Your task to perform on an android device: open app "Gmail" (install if not already installed) and enter user name: "undecidable@inbox.com" and password: "discouraging" Image 0: 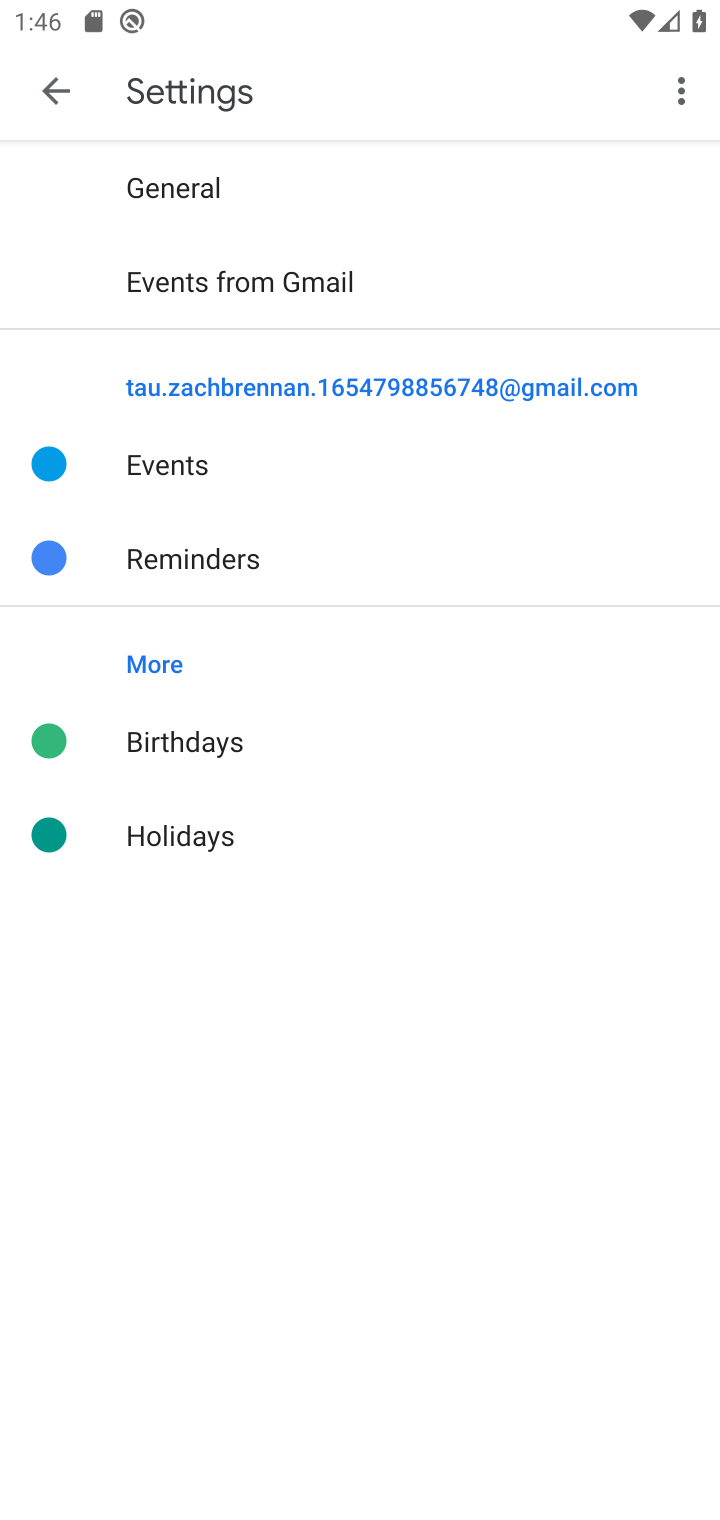
Step 0: press home button
Your task to perform on an android device: open app "Gmail" (install if not already installed) and enter user name: "undecidable@inbox.com" and password: "discouraging" Image 1: 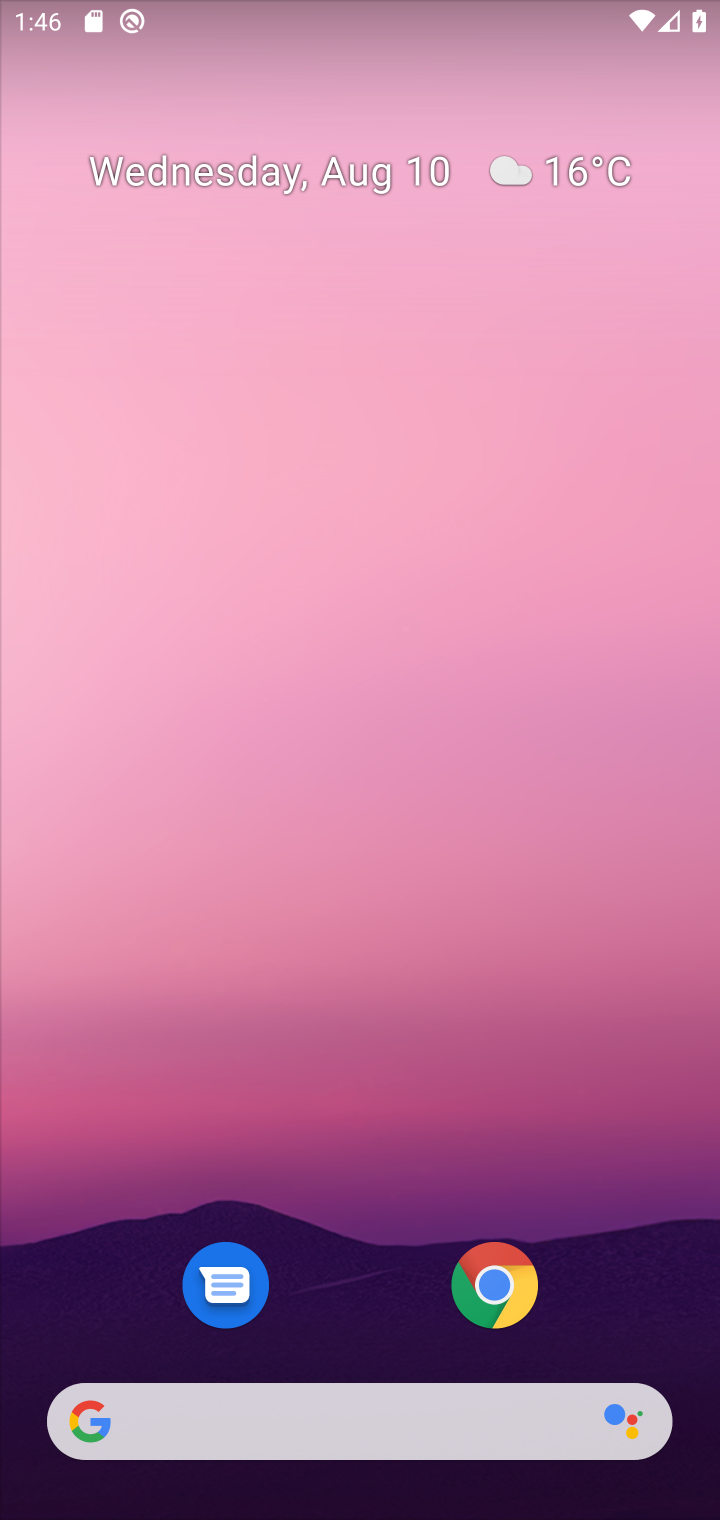
Step 1: click (349, 1210)
Your task to perform on an android device: open app "Gmail" (install if not already installed) and enter user name: "undecidable@inbox.com" and password: "discouraging" Image 2: 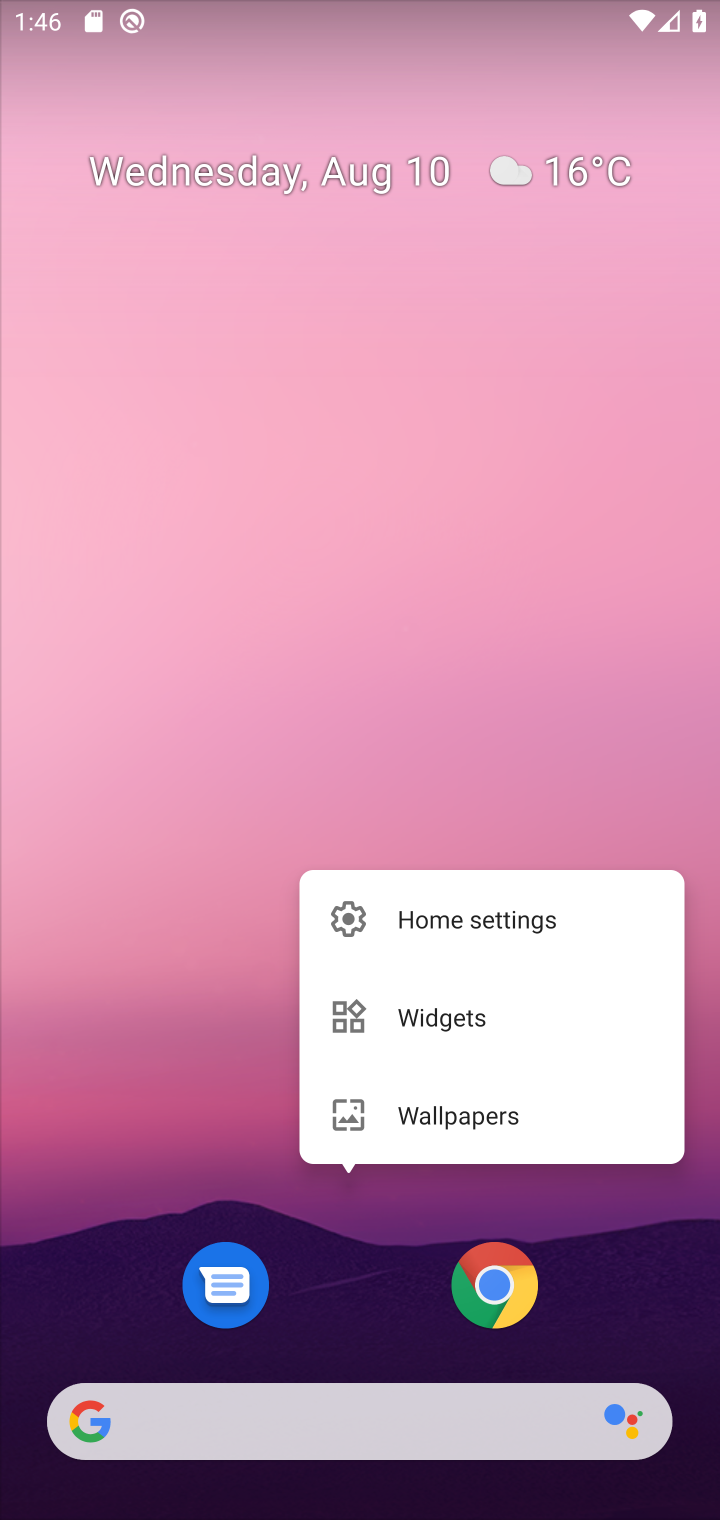
Step 2: drag from (322, 1240) to (450, 65)
Your task to perform on an android device: open app "Gmail" (install if not already installed) and enter user name: "undecidable@inbox.com" and password: "discouraging" Image 3: 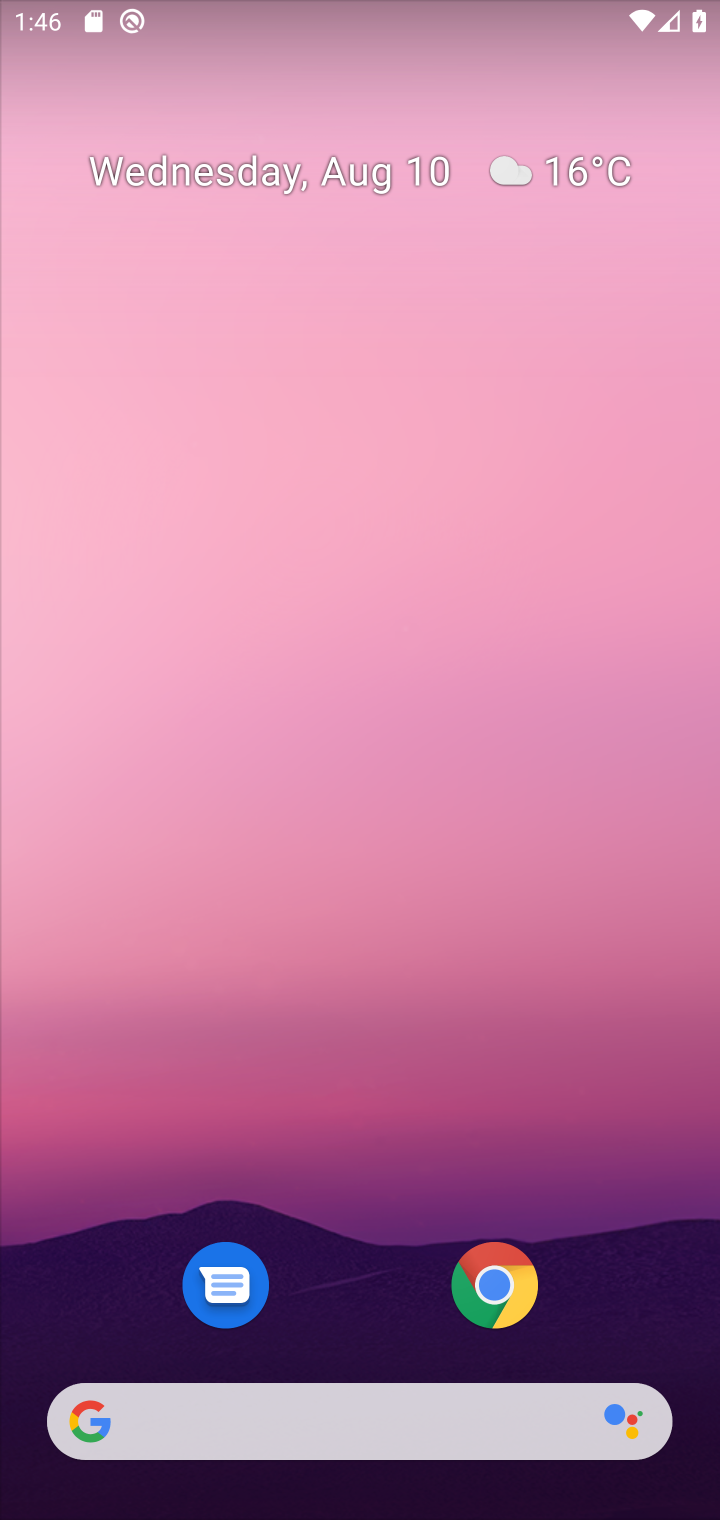
Step 3: drag from (229, 779) to (328, 154)
Your task to perform on an android device: open app "Gmail" (install if not already installed) and enter user name: "undecidable@inbox.com" and password: "discouraging" Image 4: 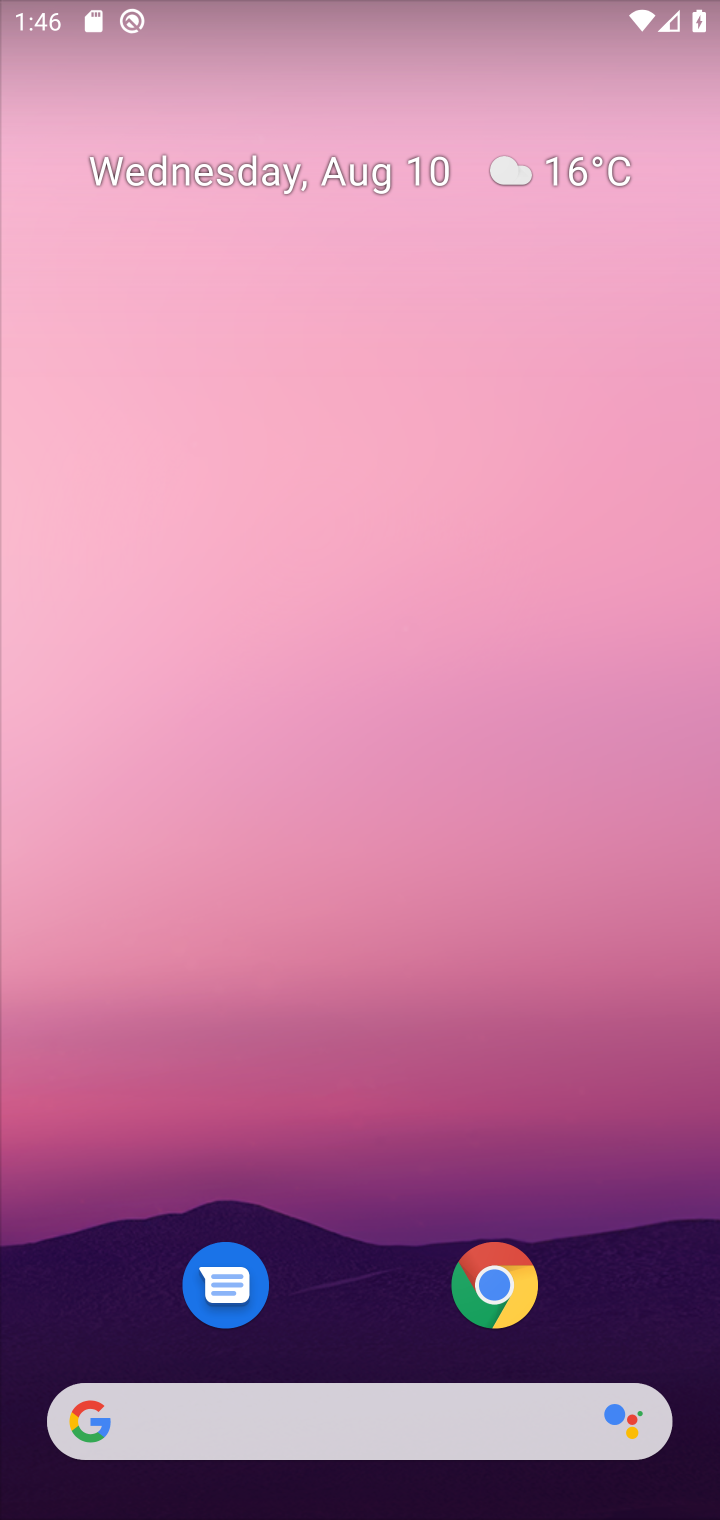
Step 4: drag from (386, 1293) to (561, 45)
Your task to perform on an android device: open app "Gmail" (install if not already installed) and enter user name: "undecidable@inbox.com" and password: "discouraging" Image 5: 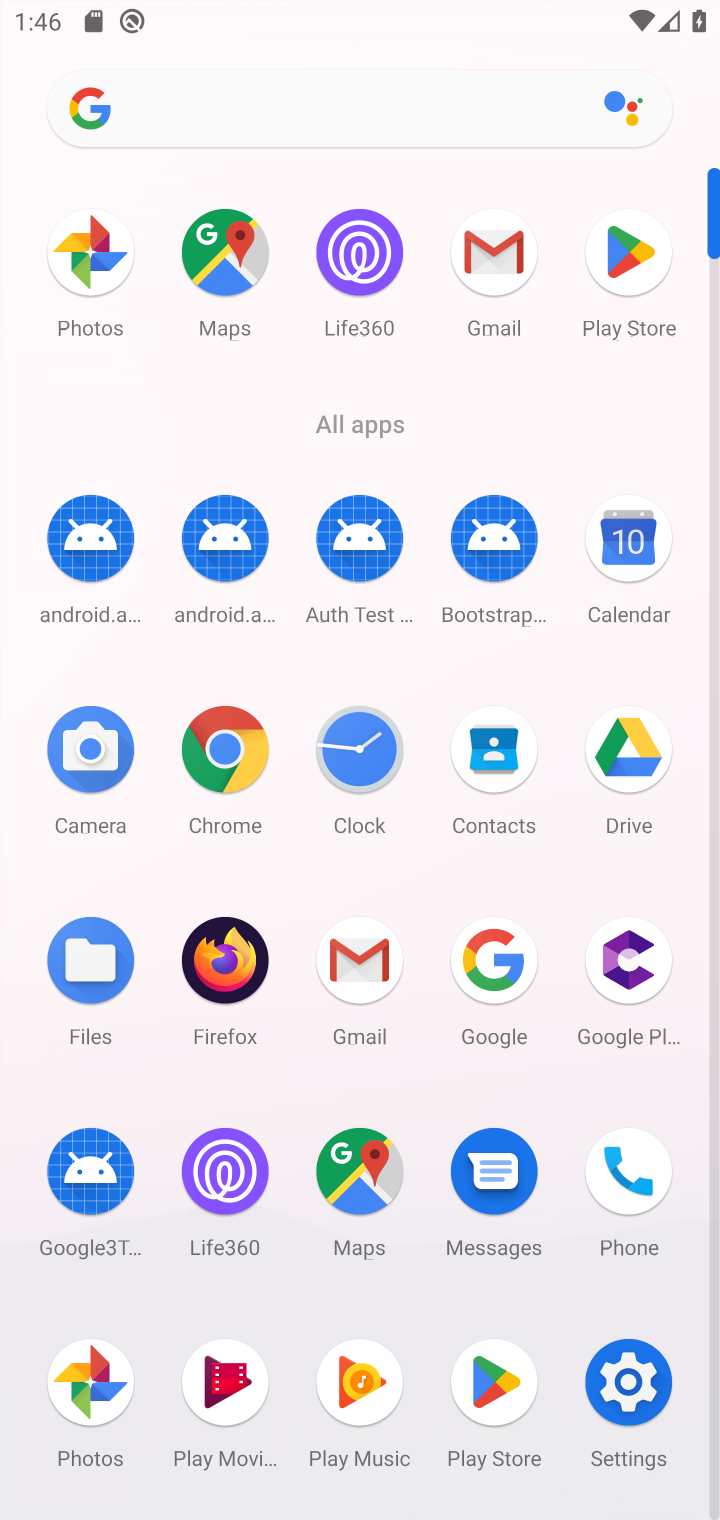
Step 5: click (493, 270)
Your task to perform on an android device: open app "Gmail" (install if not already installed) and enter user name: "undecidable@inbox.com" and password: "discouraging" Image 6: 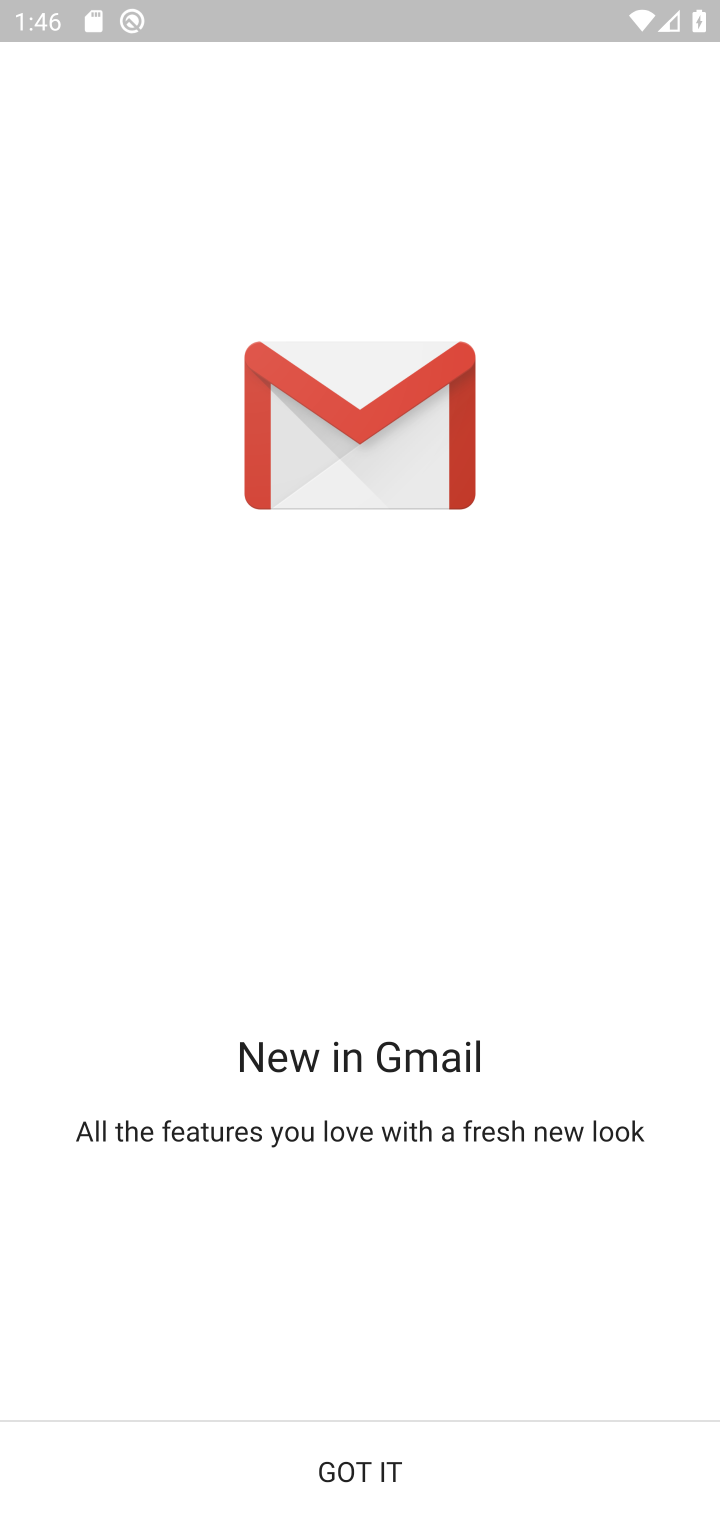
Step 6: click (358, 1461)
Your task to perform on an android device: open app "Gmail" (install if not already installed) and enter user name: "undecidable@inbox.com" and password: "discouraging" Image 7: 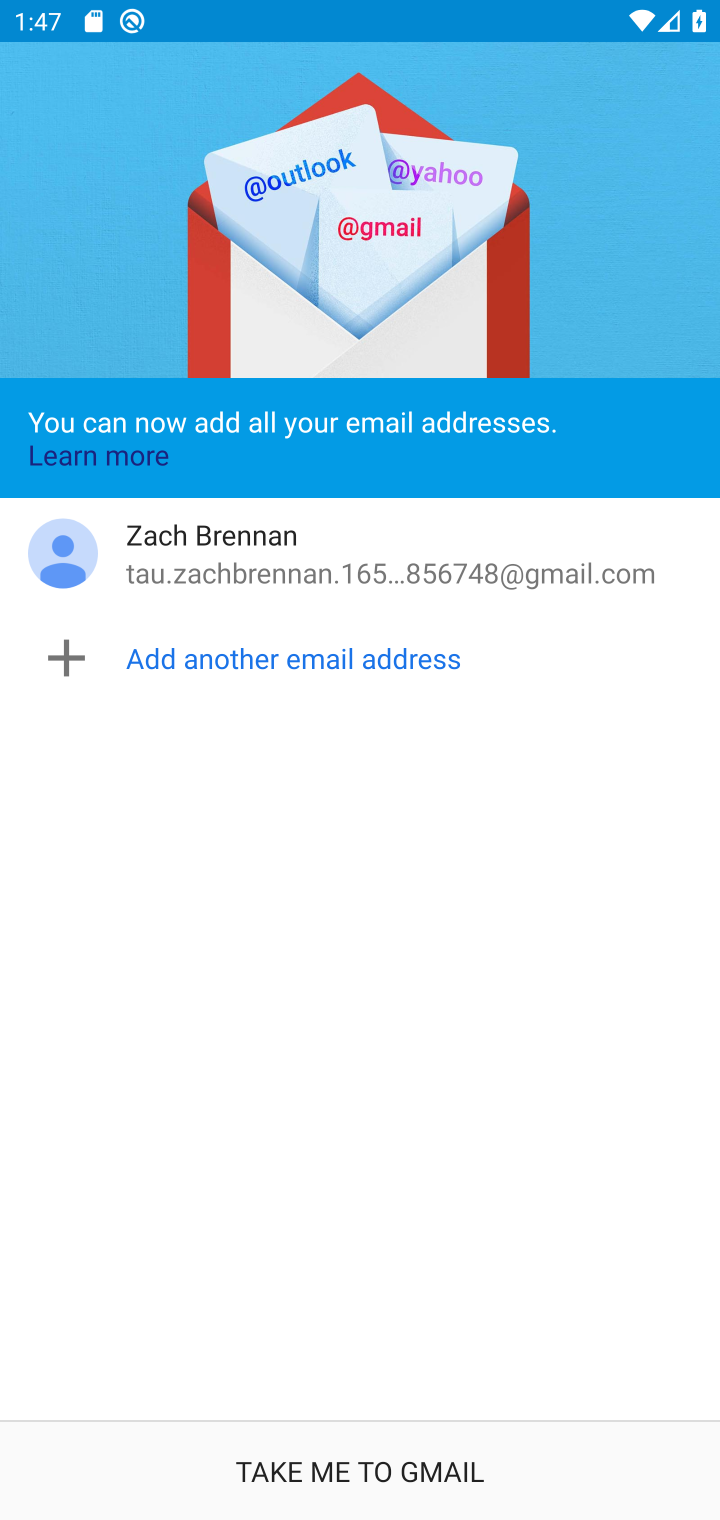
Step 7: click (336, 667)
Your task to perform on an android device: open app "Gmail" (install if not already installed) and enter user name: "undecidable@inbox.com" and password: "discouraging" Image 8: 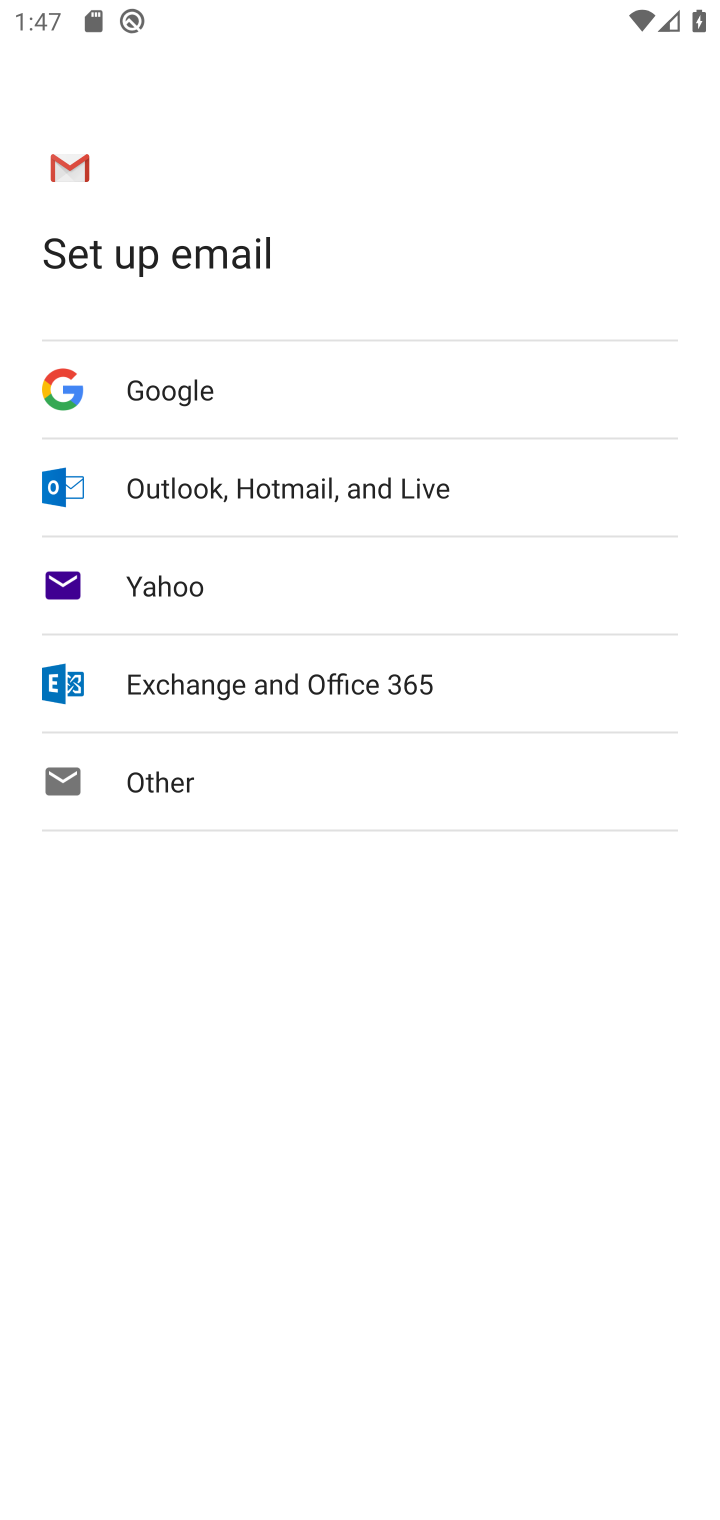
Step 8: click (214, 788)
Your task to perform on an android device: open app "Gmail" (install if not already installed) and enter user name: "undecidable@inbox.com" and password: "discouraging" Image 9: 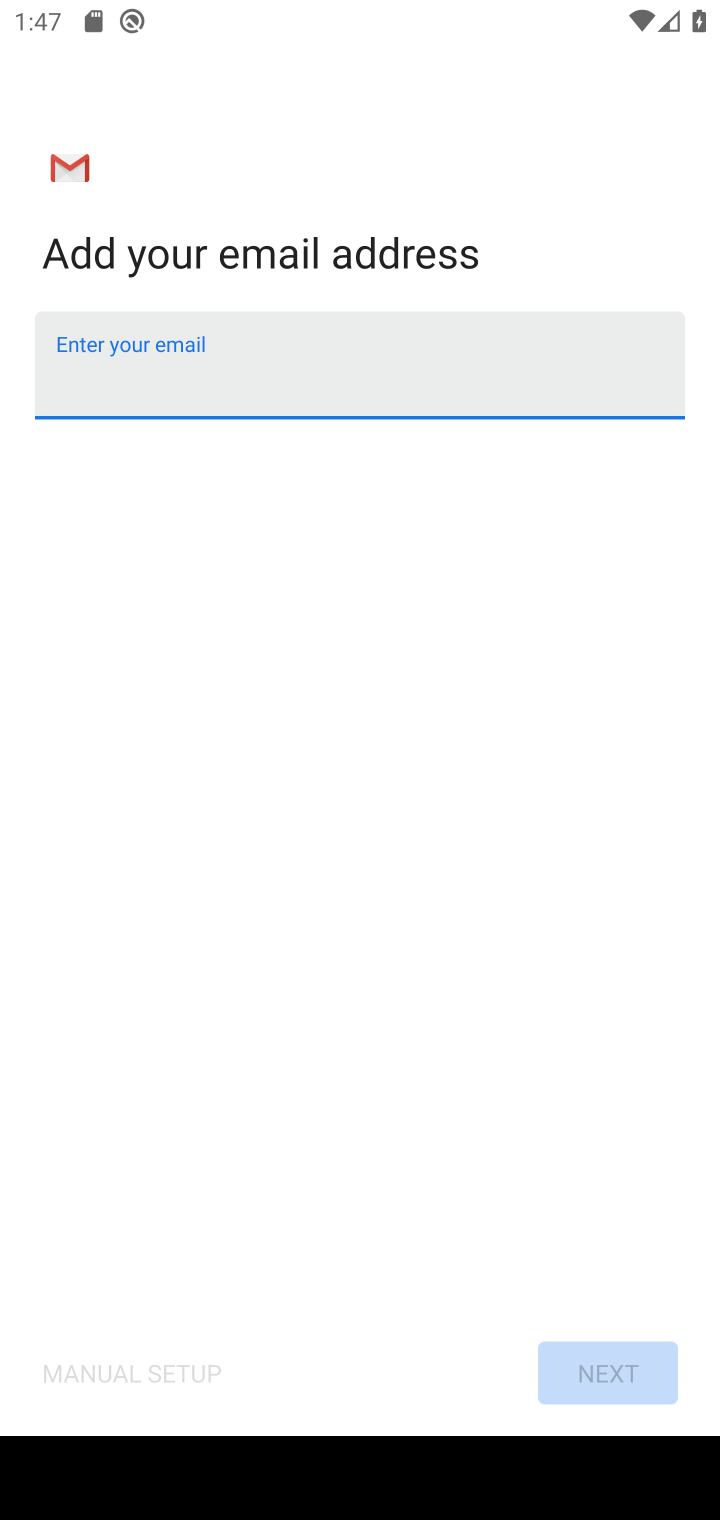
Step 9: type "undecidable@inbox.com"
Your task to perform on an android device: open app "Gmail" (install if not already installed) and enter user name: "undecidable@inbox.com" and password: "discouraging" Image 10: 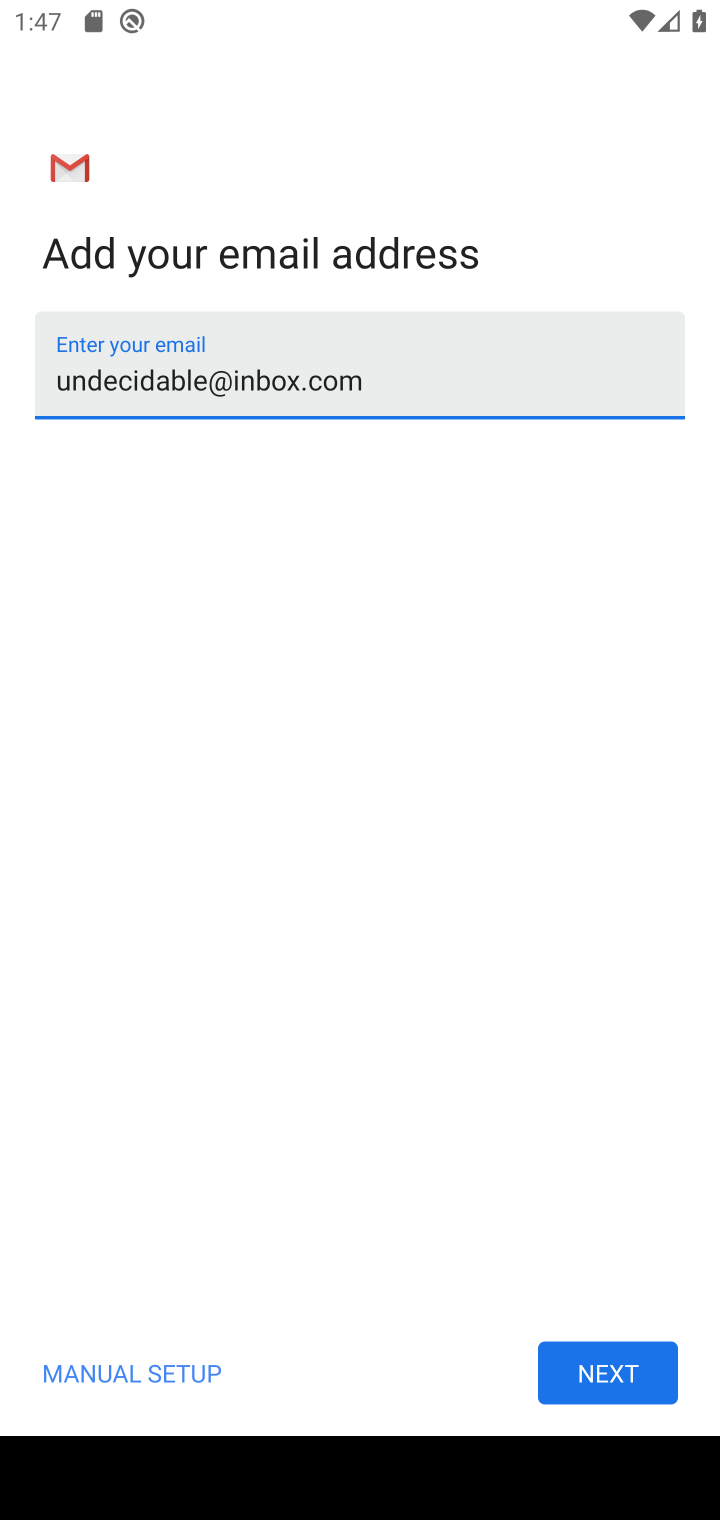
Step 10: click (599, 1380)
Your task to perform on an android device: open app "Gmail" (install if not already installed) and enter user name: "undecidable@inbox.com" and password: "discouraging" Image 11: 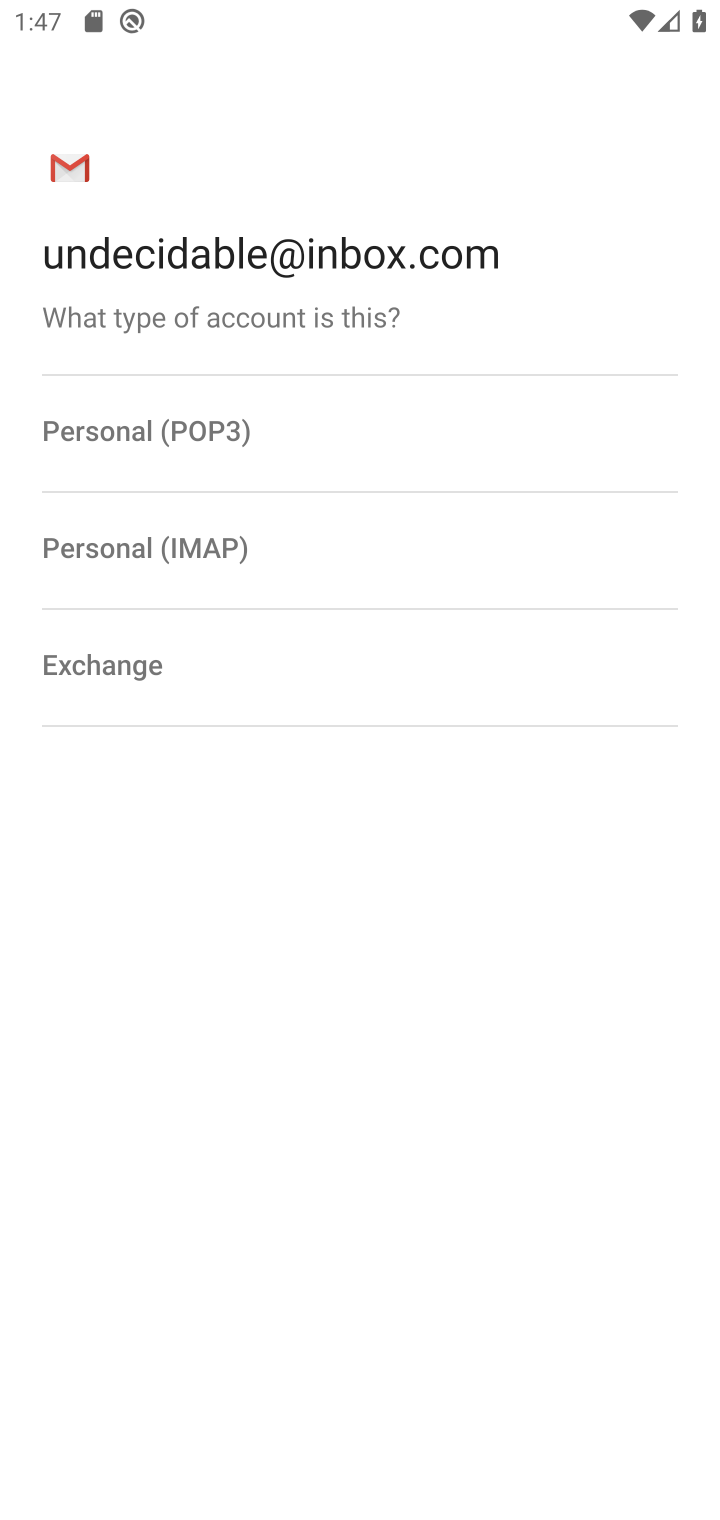
Step 11: click (225, 436)
Your task to perform on an android device: open app "Gmail" (install if not already installed) and enter user name: "undecidable@inbox.com" and password: "discouraging" Image 12: 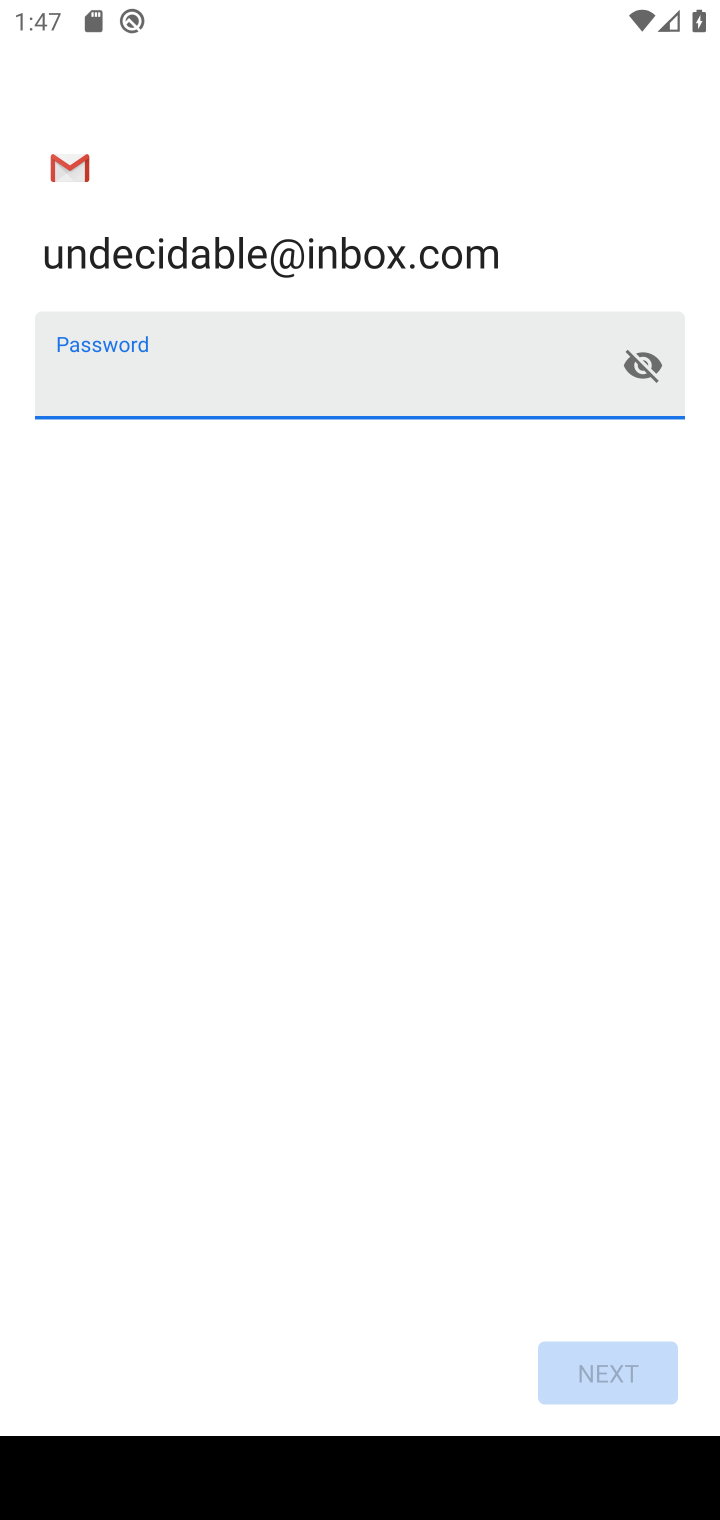
Step 12: type "discouraging"
Your task to perform on an android device: open app "Gmail" (install if not already installed) and enter user name: "undecidable@inbox.com" and password: "discouraging" Image 13: 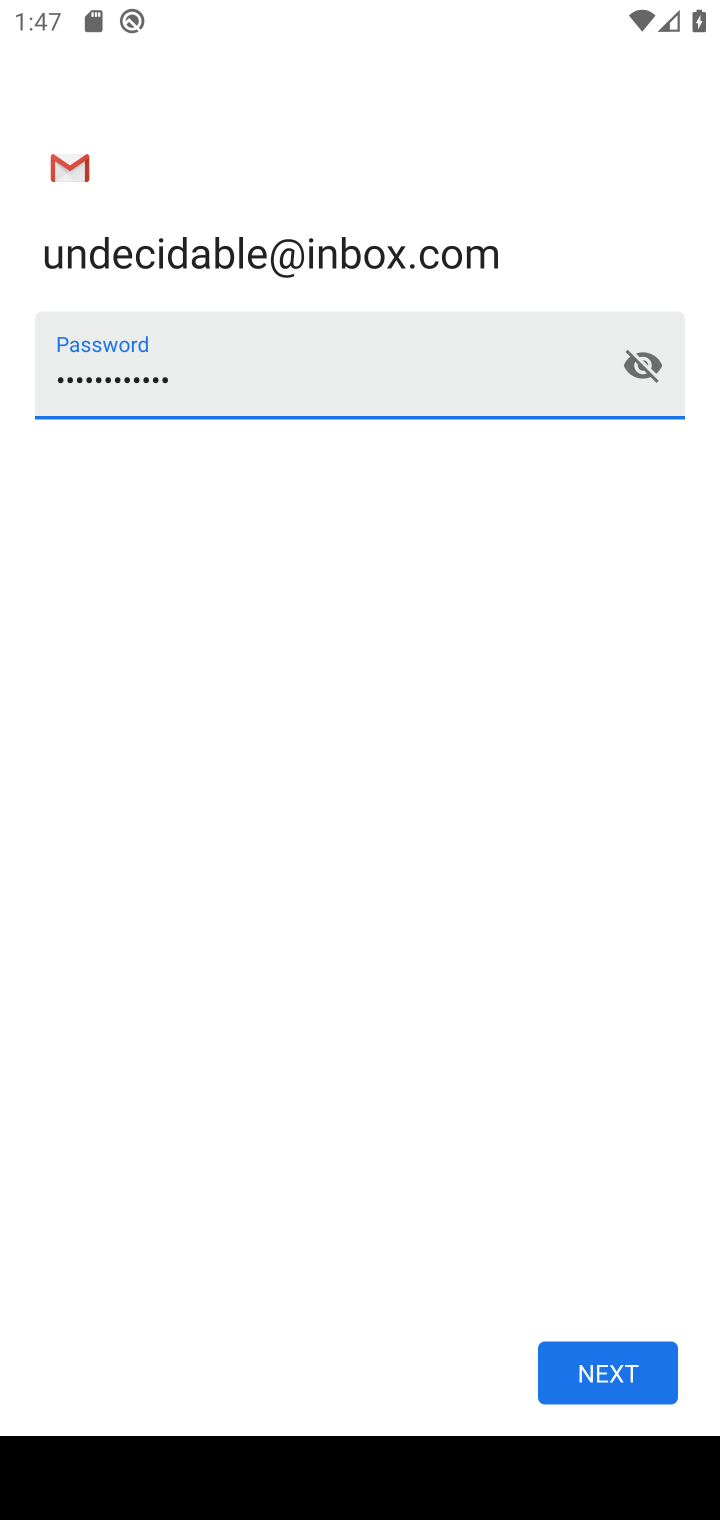
Step 13: click (634, 1376)
Your task to perform on an android device: open app "Gmail" (install if not already installed) and enter user name: "undecidable@inbox.com" and password: "discouraging" Image 14: 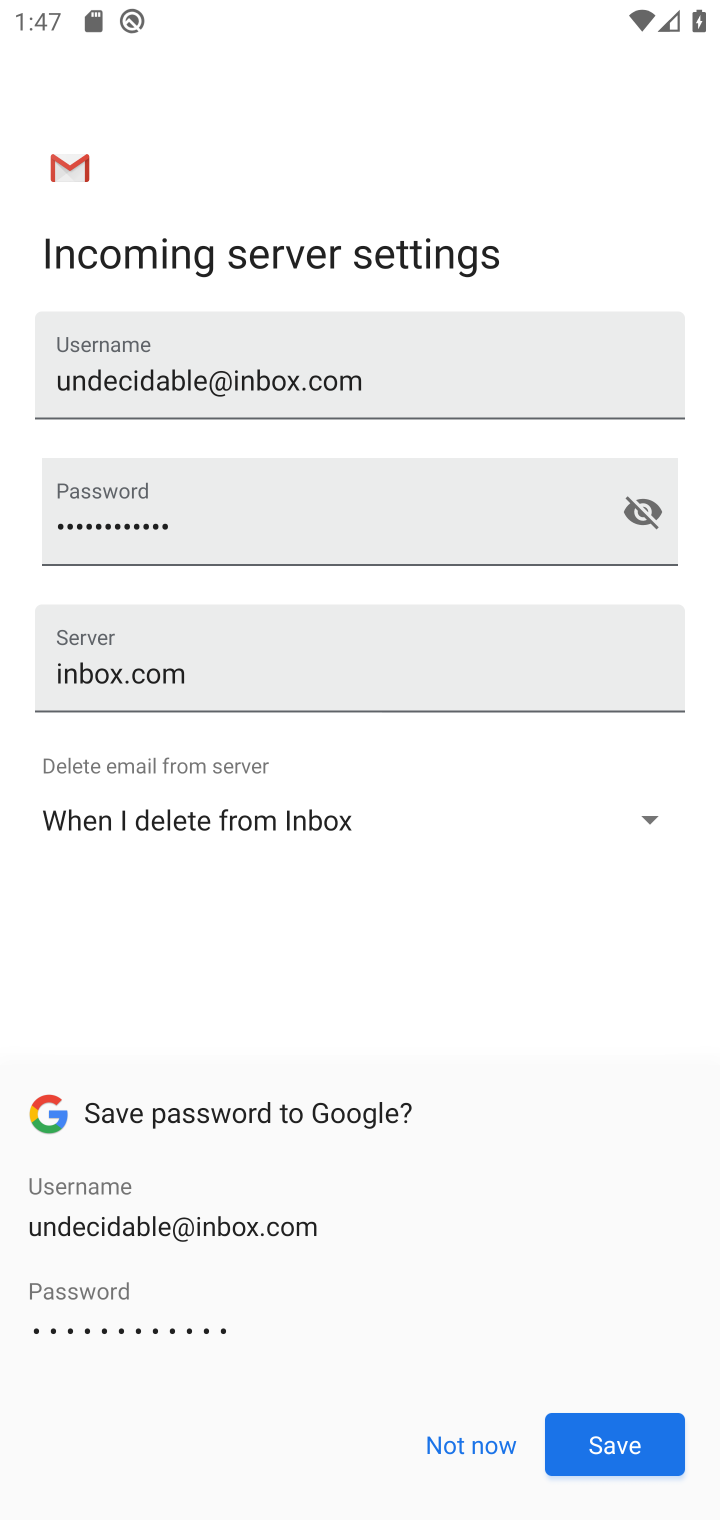
Step 14: click (651, 1463)
Your task to perform on an android device: open app "Gmail" (install if not already installed) and enter user name: "undecidable@inbox.com" and password: "discouraging" Image 15: 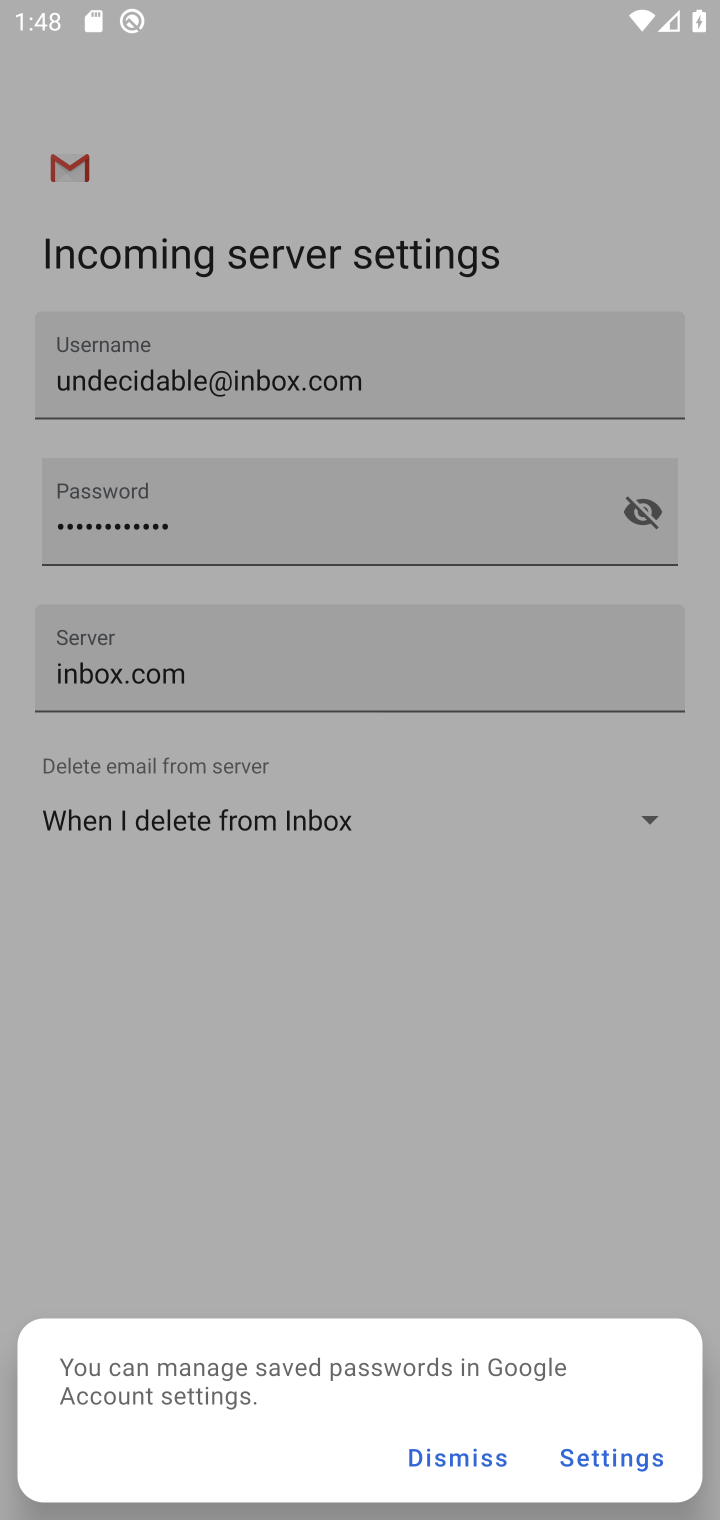
Step 15: task complete